Your task to perform on an android device: choose inbox layout in the gmail app Image 0: 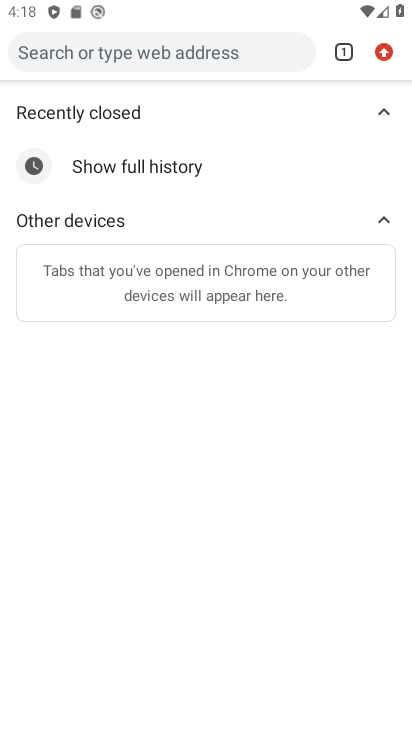
Step 0: press home button
Your task to perform on an android device: choose inbox layout in the gmail app Image 1: 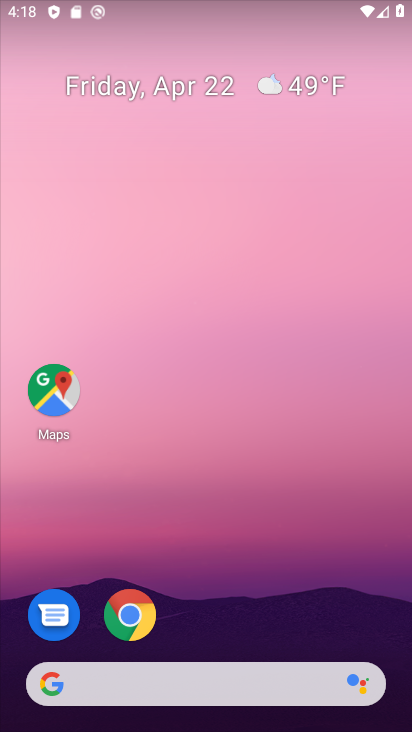
Step 1: drag from (214, 630) to (215, 219)
Your task to perform on an android device: choose inbox layout in the gmail app Image 2: 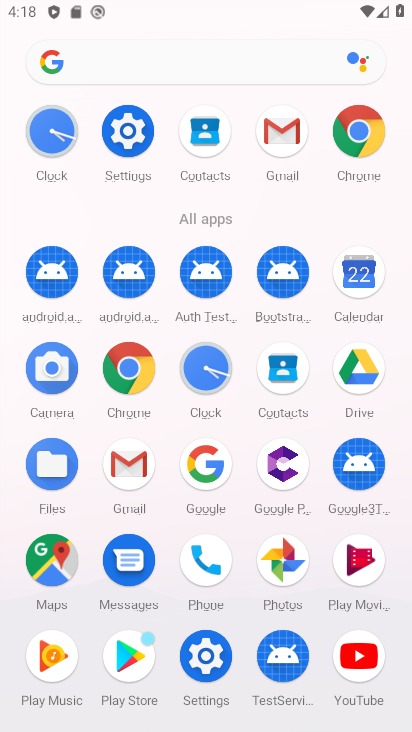
Step 2: click (266, 139)
Your task to perform on an android device: choose inbox layout in the gmail app Image 3: 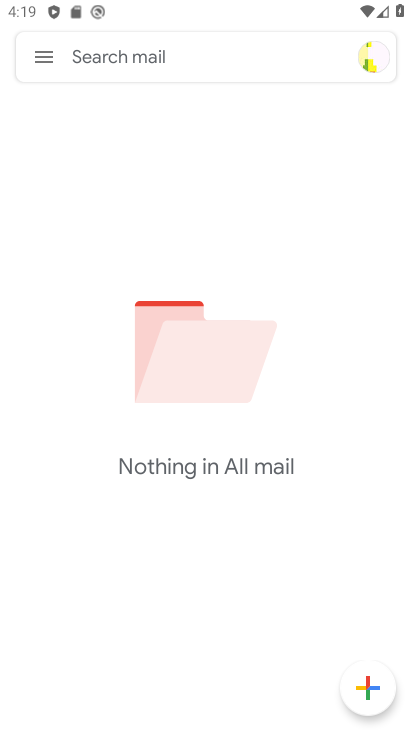
Step 3: click (34, 57)
Your task to perform on an android device: choose inbox layout in the gmail app Image 4: 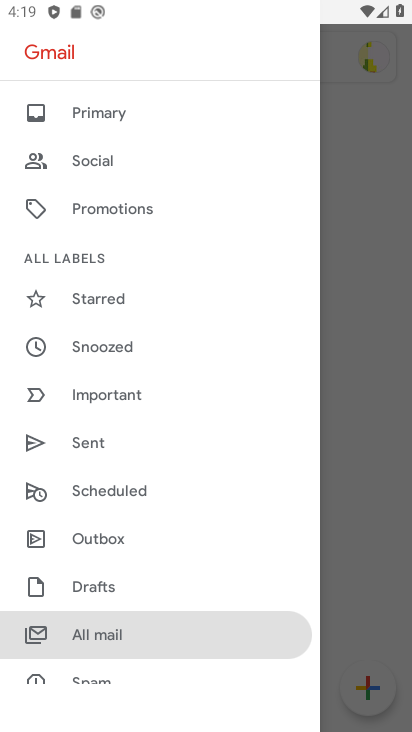
Step 4: drag from (154, 580) to (196, 312)
Your task to perform on an android device: choose inbox layout in the gmail app Image 5: 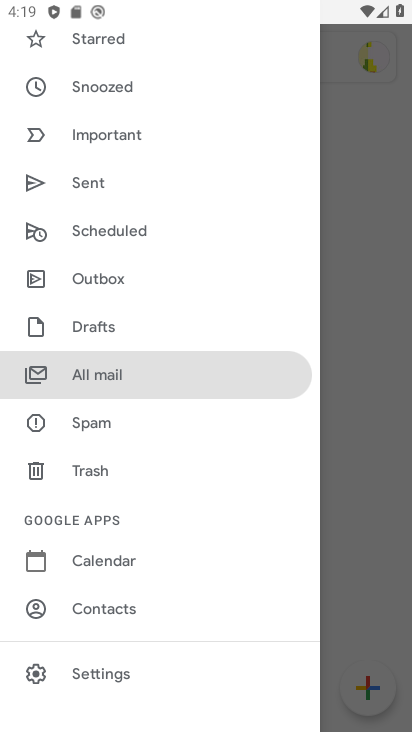
Step 5: click (105, 664)
Your task to perform on an android device: choose inbox layout in the gmail app Image 6: 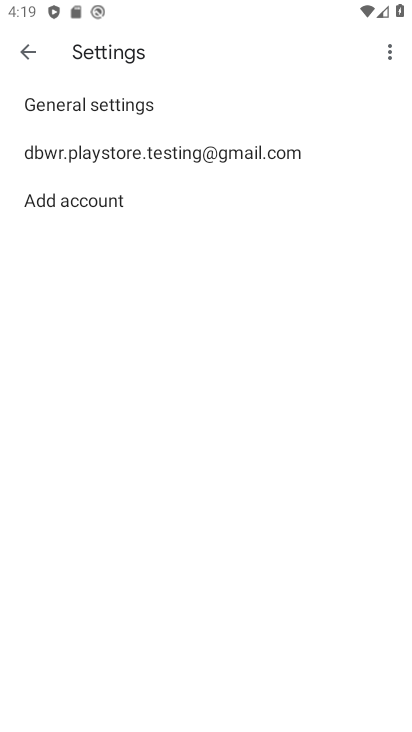
Step 6: click (180, 155)
Your task to perform on an android device: choose inbox layout in the gmail app Image 7: 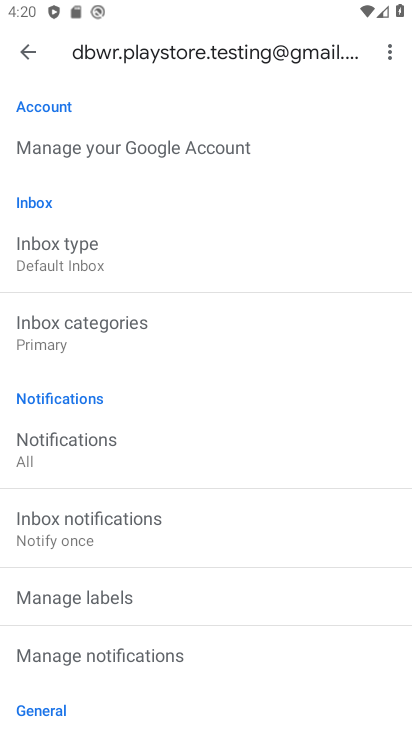
Step 7: click (152, 257)
Your task to perform on an android device: choose inbox layout in the gmail app Image 8: 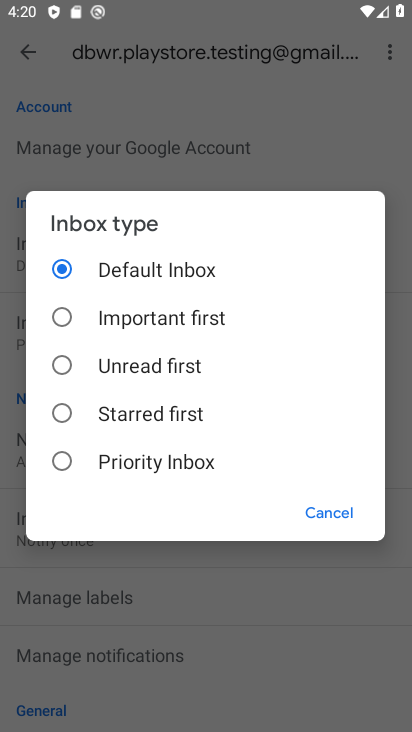
Step 8: click (128, 453)
Your task to perform on an android device: choose inbox layout in the gmail app Image 9: 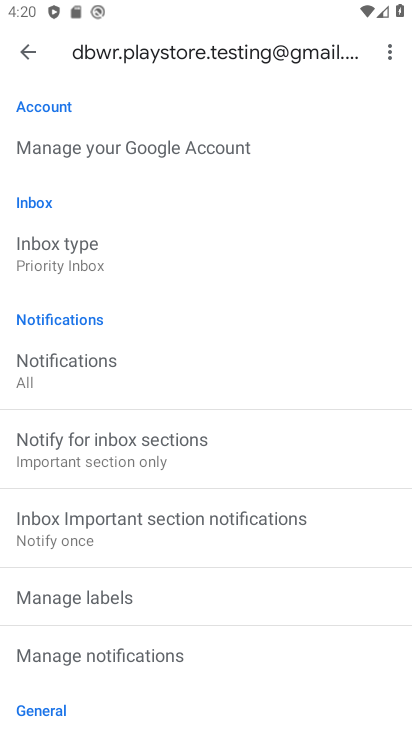
Step 9: task complete